Your task to perform on an android device: visit the assistant section in the google photos Image 0: 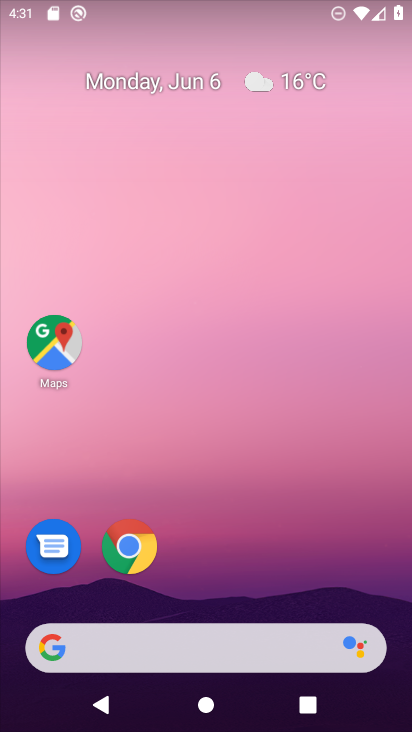
Step 0: drag from (194, 598) to (166, 81)
Your task to perform on an android device: visit the assistant section in the google photos Image 1: 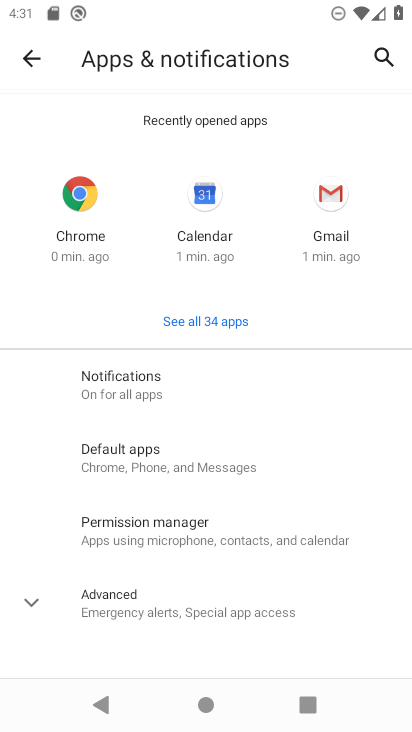
Step 1: press home button
Your task to perform on an android device: visit the assistant section in the google photos Image 2: 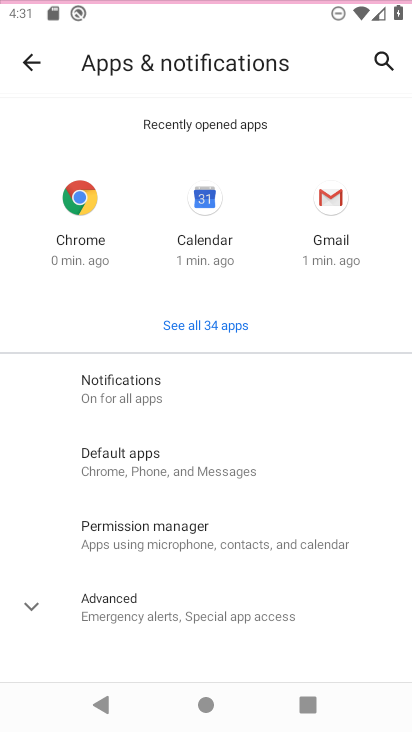
Step 2: drag from (166, 81) to (2, 458)
Your task to perform on an android device: visit the assistant section in the google photos Image 3: 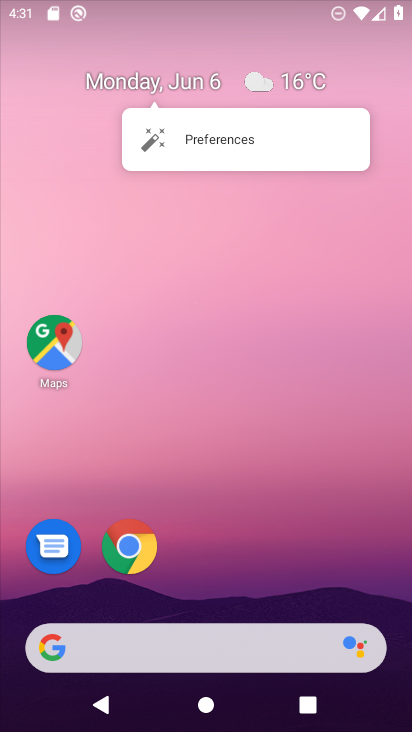
Step 3: drag from (201, 604) to (142, 1)
Your task to perform on an android device: visit the assistant section in the google photos Image 4: 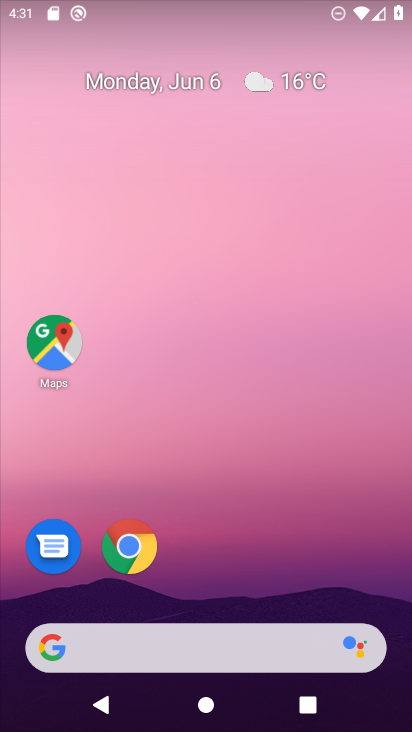
Step 4: drag from (214, 617) to (177, 53)
Your task to perform on an android device: visit the assistant section in the google photos Image 5: 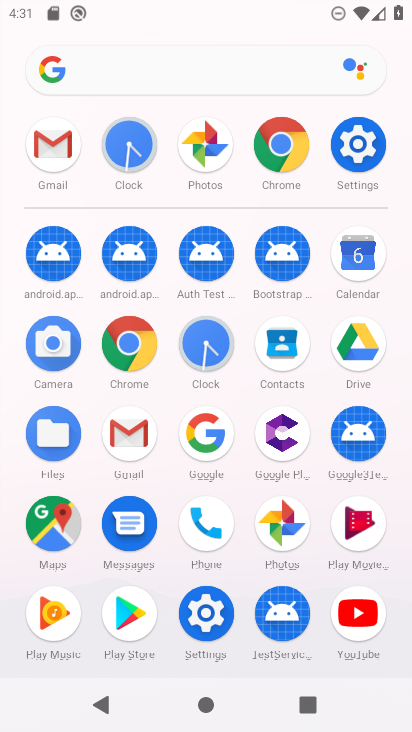
Step 5: click (298, 521)
Your task to perform on an android device: visit the assistant section in the google photos Image 6: 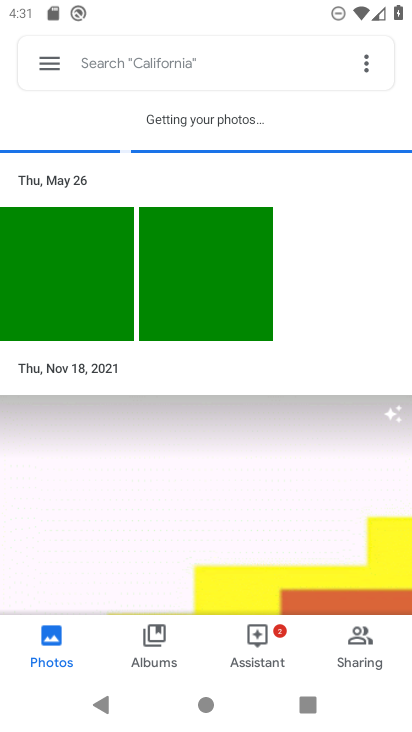
Step 6: click (246, 650)
Your task to perform on an android device: visit the assistant section in the google photos Image 7: 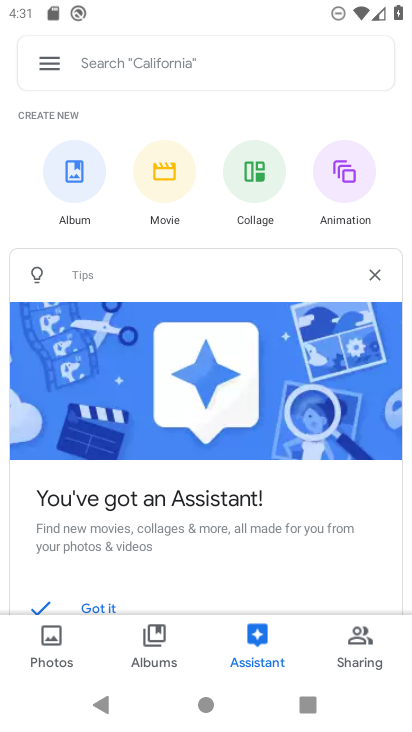
Step 7: task complete